Your task to perform on an android device: Open Youtube and go to "Your channel" Image 0: 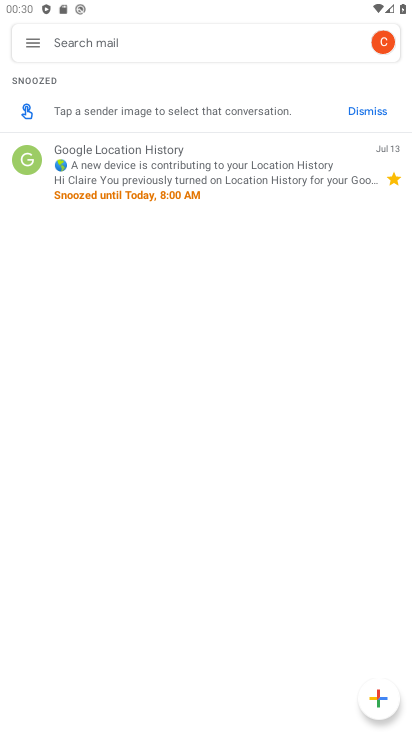
Step 0: press home button
Your task to perform on an android device: Open Youtube and go to "Your channel" Image 1: 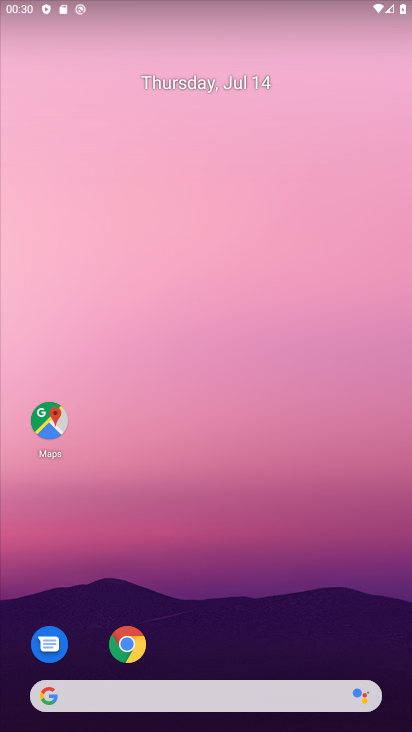
Step 1: drag from (273, 711) to (185, 152)
Your task to perform on an android device: Open Youtube and go to "Your channel" Image 2: 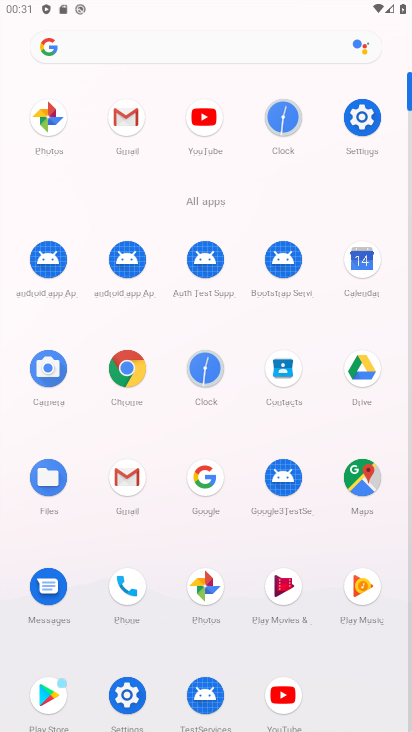
Step 2: click (208, 112)
Your task to perform on an android device: Open Youtube and go to "Your channel" Image 3: 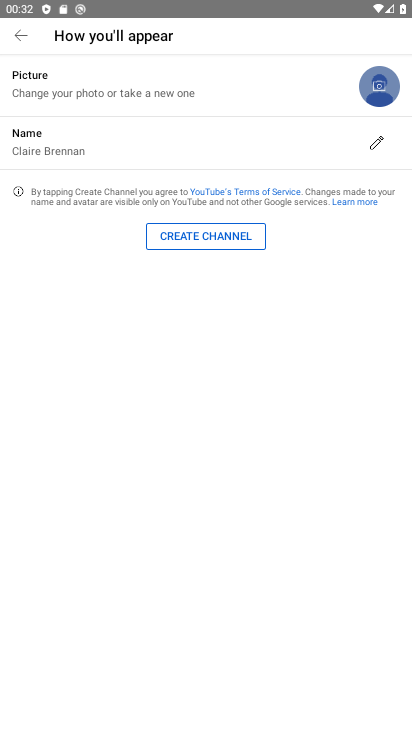
Step 3: task complete